Your task to perform on an android device: turn off wifi Image 0: 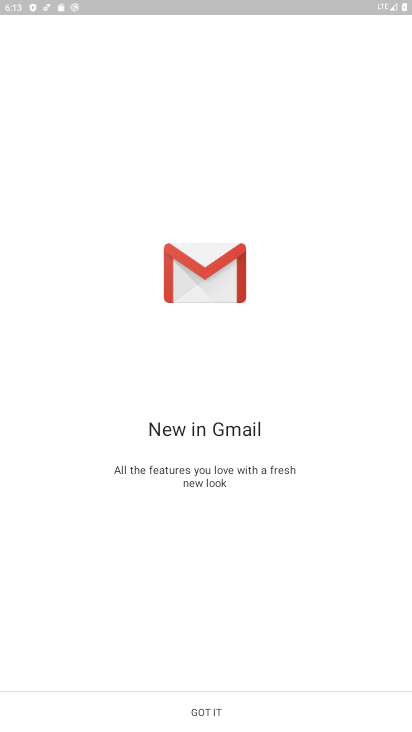
Step 0: press home button
Your task to perform on an android device: turn off wifi Image 1: 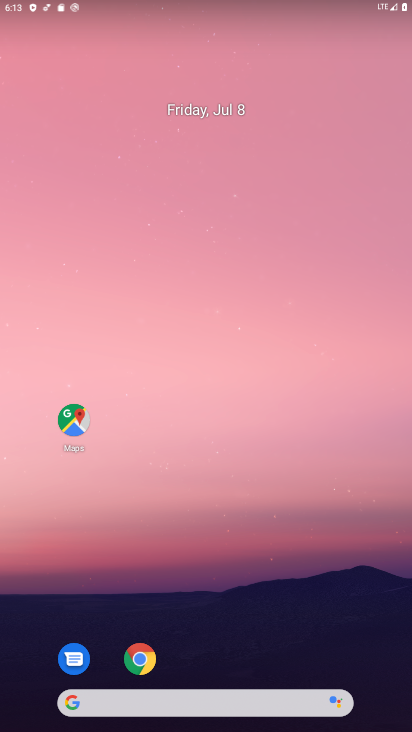
Step 1: drag from (223, 715) to (278, 72)
Your task to perform on an android device: turn off wifi Image 2: 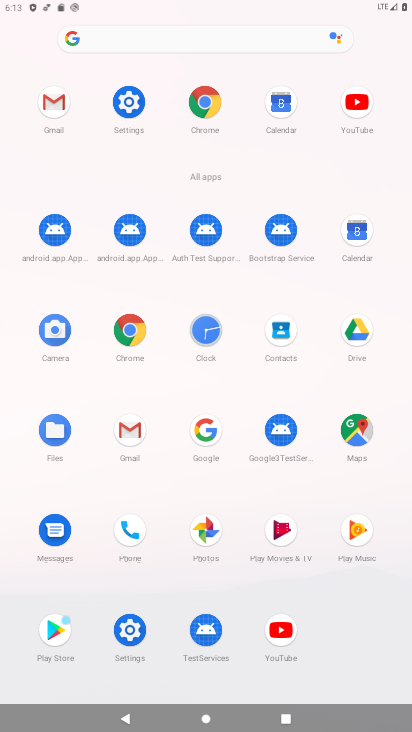
Step 2: click (136, 100)
Your task to perform on an android device: turn off wifi Image 3: 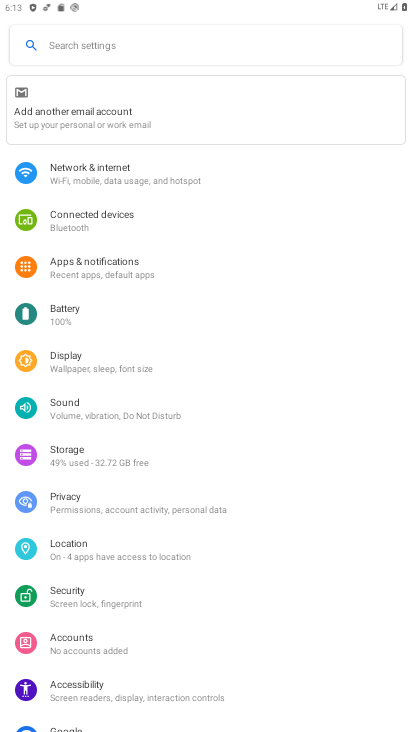
Step 3: click (169, 175)
Your task to perform on an android device: turn off wifi Image 4: 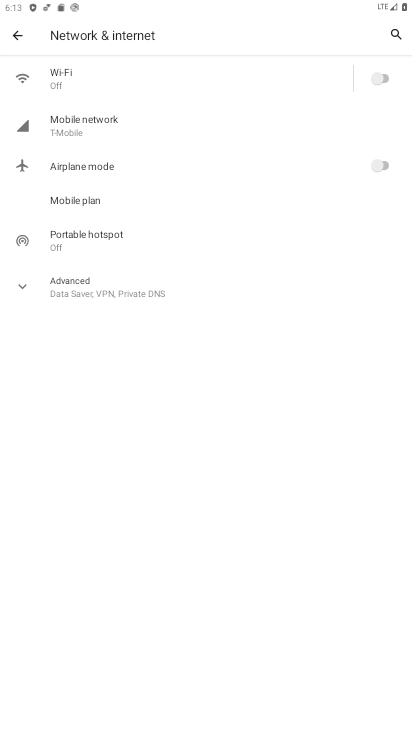
Step 4: task complete